Your task to perform on an android device: Set an alarm for 12pm Image 0: 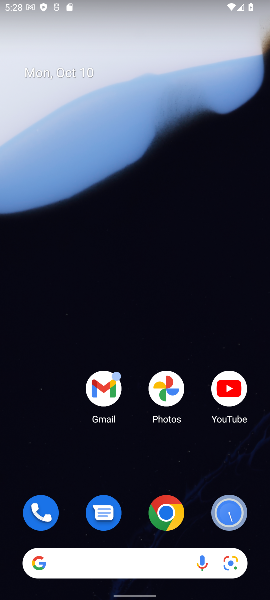
Step 0: click (222, 521)
Your task to perform on an android device: Set an alarm for 12pm Image 1: 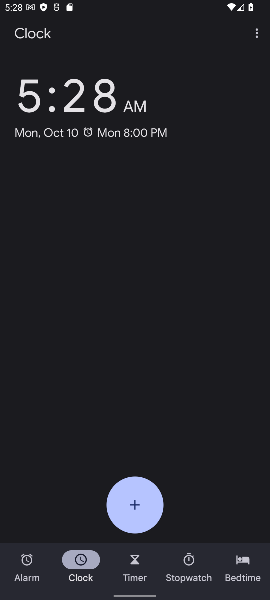
Step 1: click (22, 550)
Your task to perform on an android device: Set an alarm for 12pm Image 2: 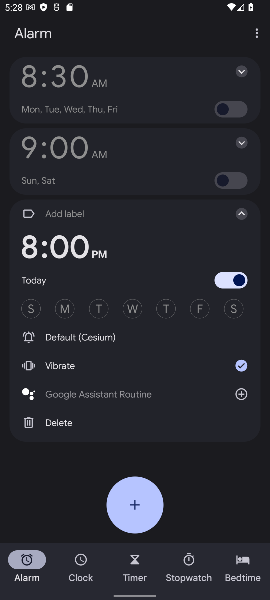
Step 2: click (131, 488)
Your task to perform on an android device: Set an alarm for 12pm Image 3: 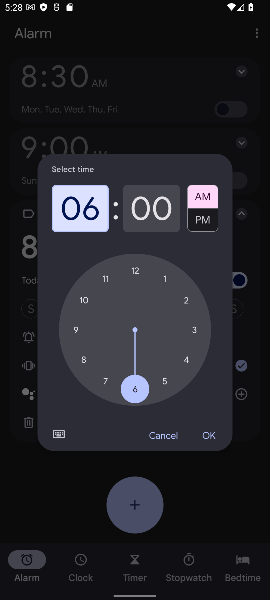
Step 3: click (136, 265)
Your task to perform on an android device: Set an alarm for 12pm Image 4: 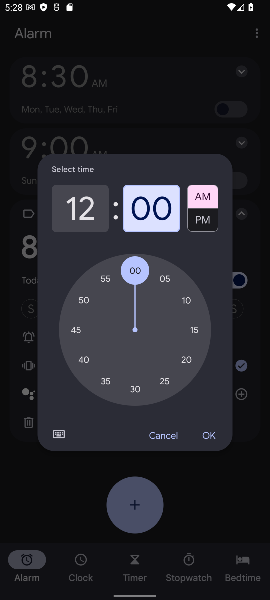
Step 4: click (208, 223)
Your task to perform on an android device: Set an alarm for 12pm Image 5: 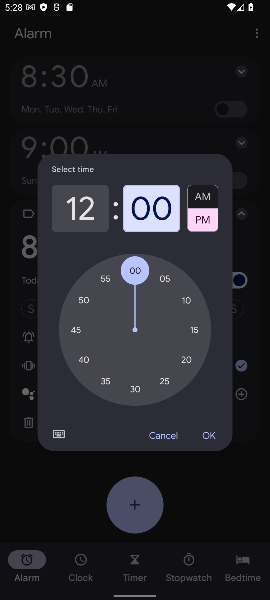
Step 5: click (208, 435)
Your task to perform on an android device: Set an alarm for 12pm Image 6: 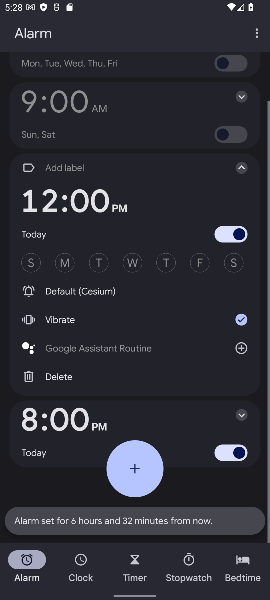
Step 6: task complete